Your task to perform on an android device: Open the calendar and show me this week's events Image 0: 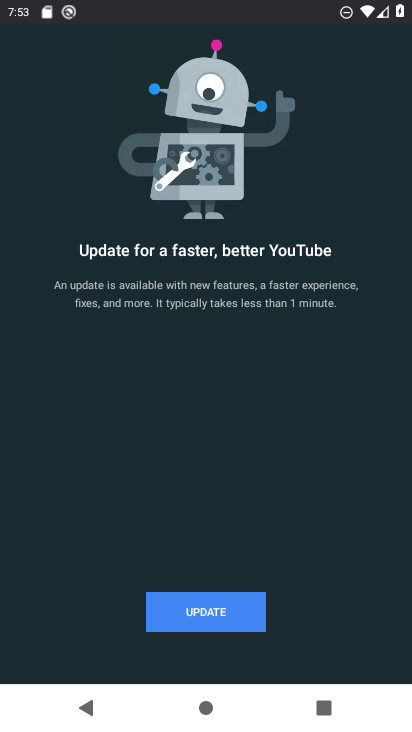
Step 0: press home button
Your task to perform on an android device: Open the calendar and show me this week's events Image 1: 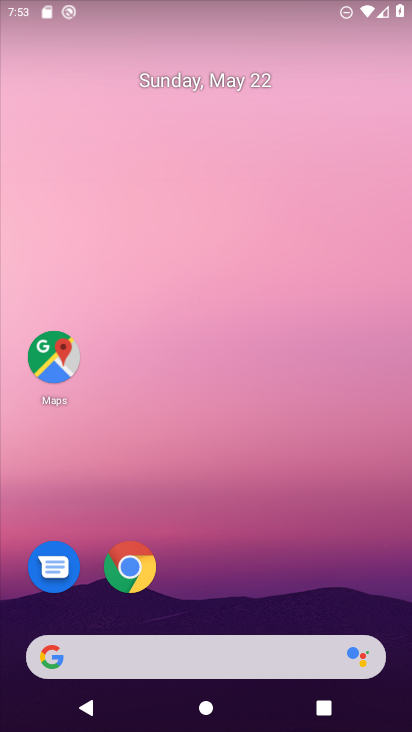
Step 1: drag from (267, 538) to (339, 31)
Your task to perform on an android device: Open the calendar and show me this week's events Image 2: 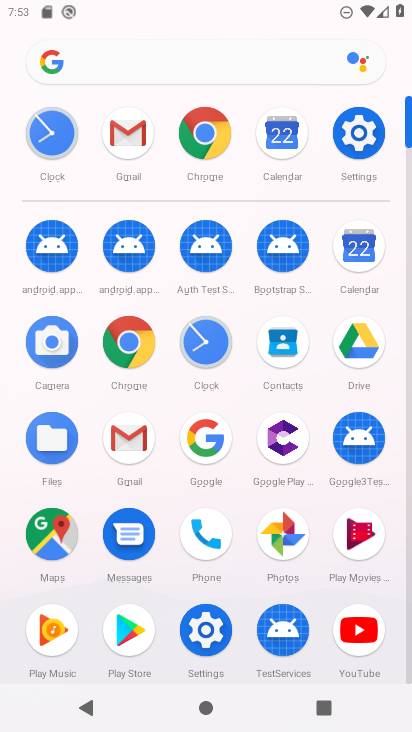
Step 2: click (374, 241)
Your task to perform on an android device: Open the calendar and show me this week's events Image 3: 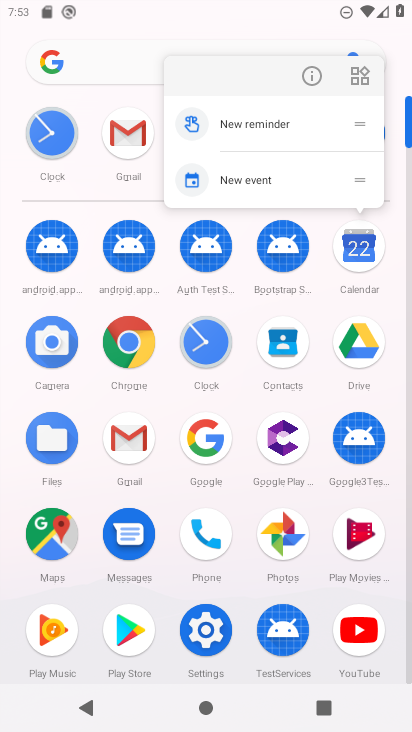
Step 3: click (363, 248)
Your task to perform on an android device: Open the calendar and show me this week's events Image 4: 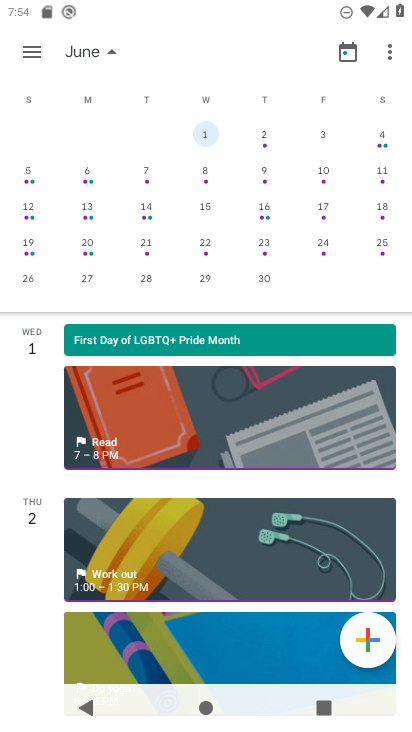
Step 4: drag from (35, 206) to (357, 207)
Your task to perform on an android device: Open the calendar and show me this week's events Image 5: 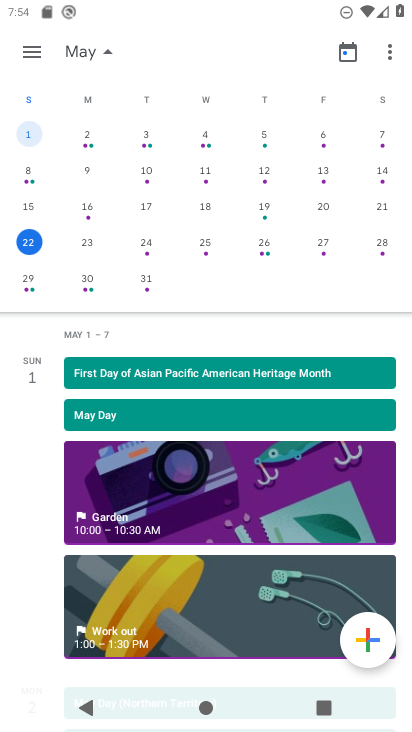
Step 5: click (29, 237)
Your task to perform on an android device: Open the calendar and show me this week's events Image 6: 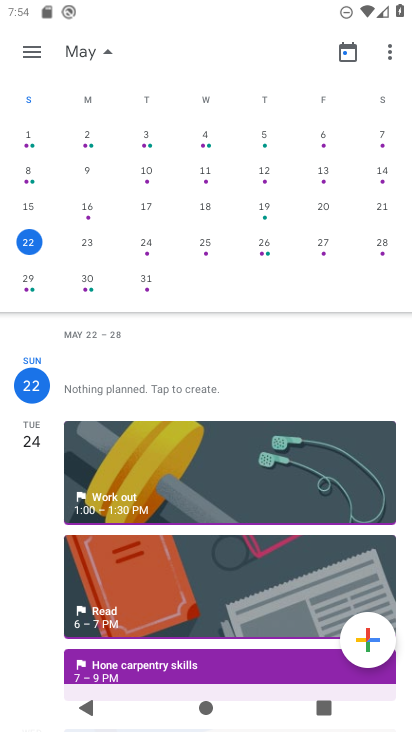
Step 6: drag from (170, 622) to (286, 109)
Your task to perform on an android device: Open the calendar and show me this week's events Image 7: 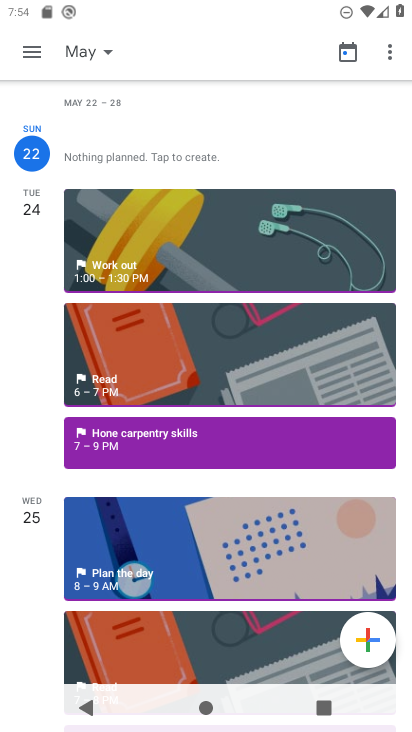
Step 7: click (156, 446)
Your task to perform on an android device: Open the calendar and show me this week's events Image 8: 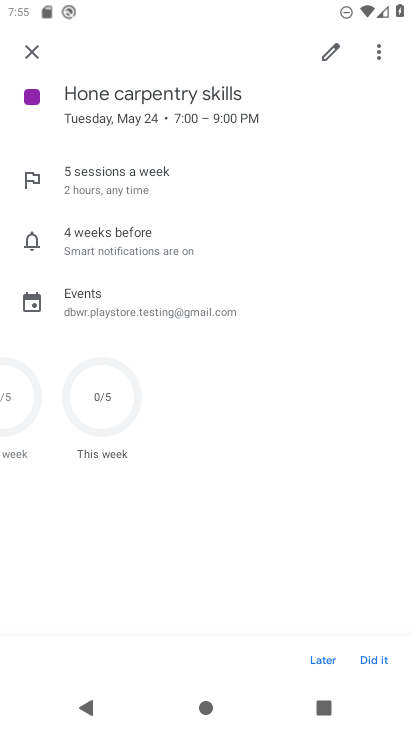
Step 8: task complete